Your task to perform on an android device: Check the weather Image 0: 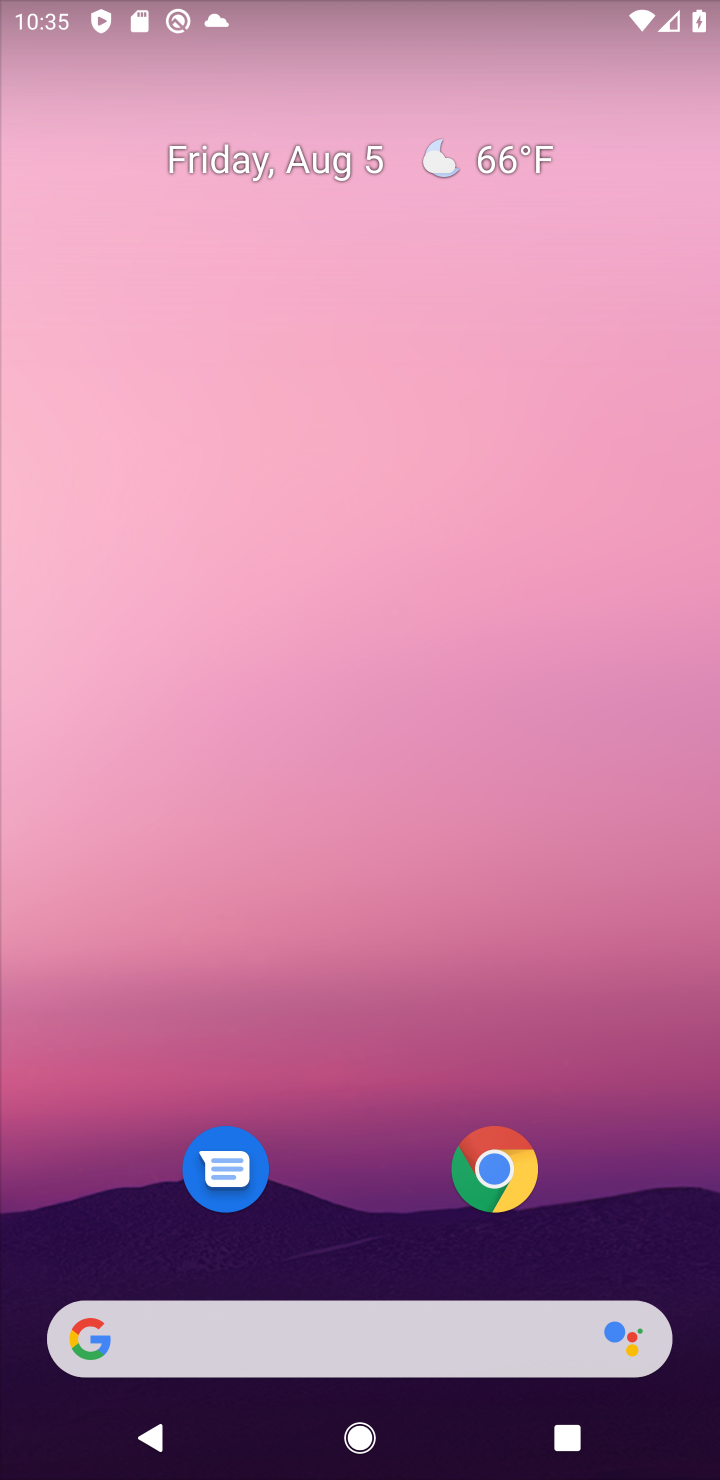
Step 0: click (497, 156)
Your task to perform on an android device: Check the weather Image 1: 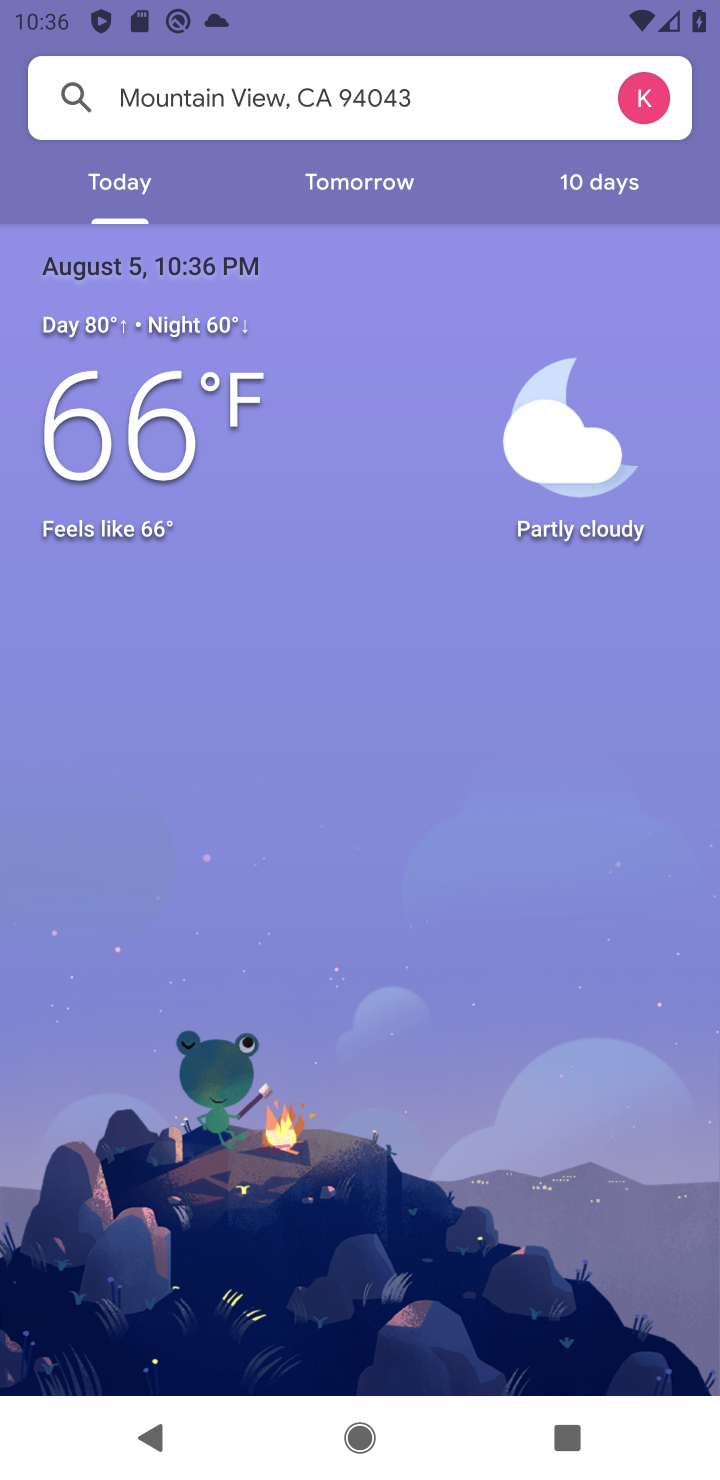
Step 1: task complete